Your task to perform on an android device: Show the shopping cart on newegg.com. Search for razer blackwidow on newegg.com, select the first entry, add it to the cart, then select checkout. Image 0: 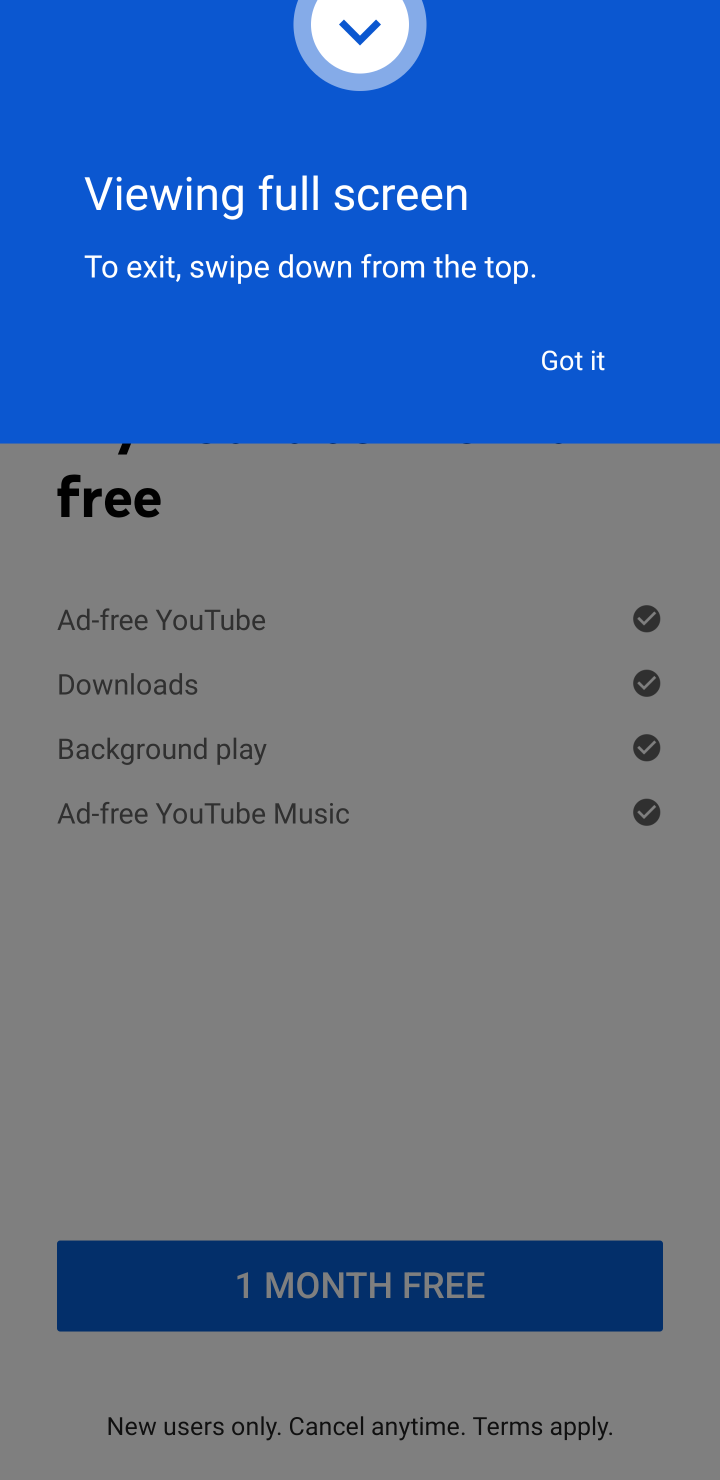
Step 0: click (576, 370)
Your task to perform on an android device: Show the shopping cart on newegg.com. Search for razer blackwidow on newegg.com, select the first entry, add it to the cart, then select checkout. Image 1: 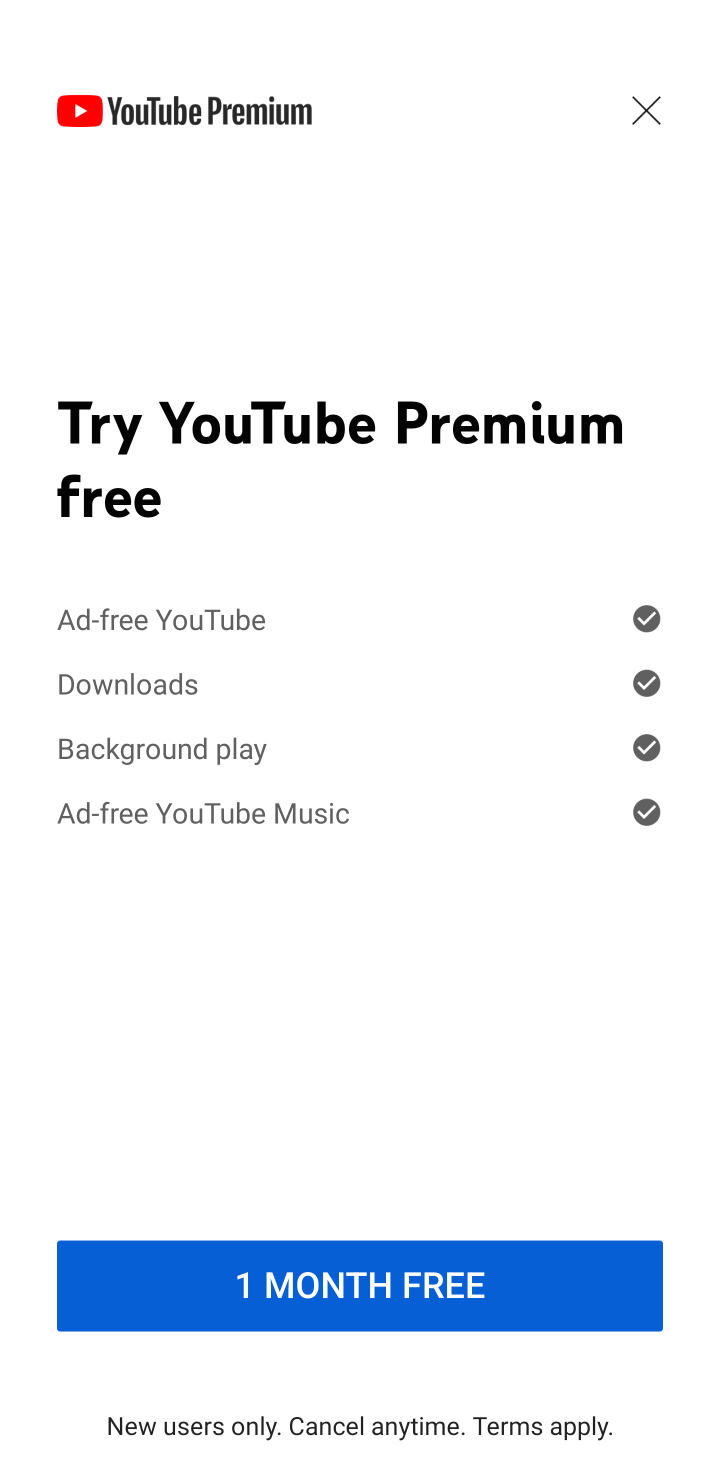
Step 1: click (643, 104)
Your task to perform on an android device: Show the shopping cart on newegg.com. Search for razer blackwidow on newegg.com, select the first entry, add it to the cart, then select checkout. Image 2: 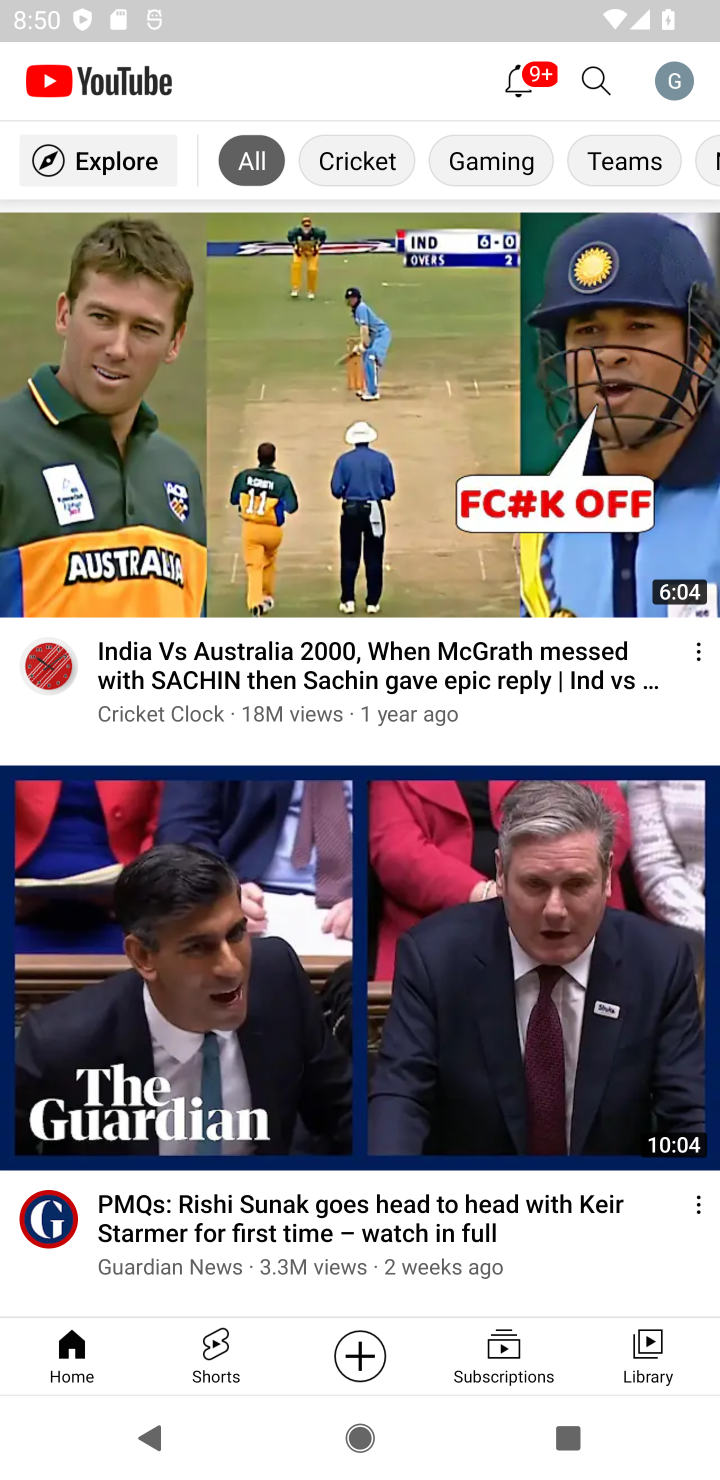
Step 2: press home button
Your task to perform on an android device: Show the shopping cart on newegg.com. Search for razer blackwidow on newegg.com, select the first entry, add it to the cart, then select checkout. Image 3: 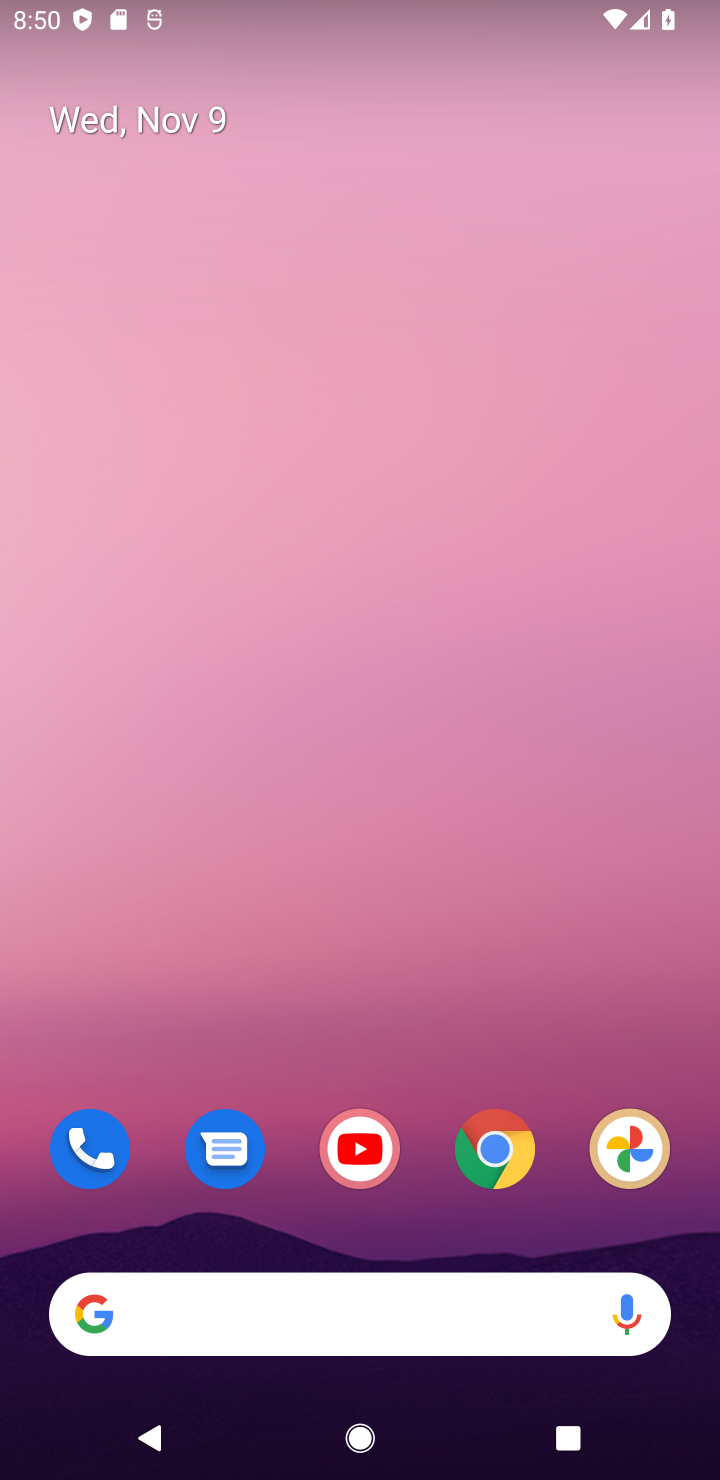
Step 3: click (487, 1122)
Your task to perform on an android device: Show the shopping cart on newegg.com. Search for razer blackwidow on newegg.com, select the first entry, add it to the cart, then select checkout. Image 4: 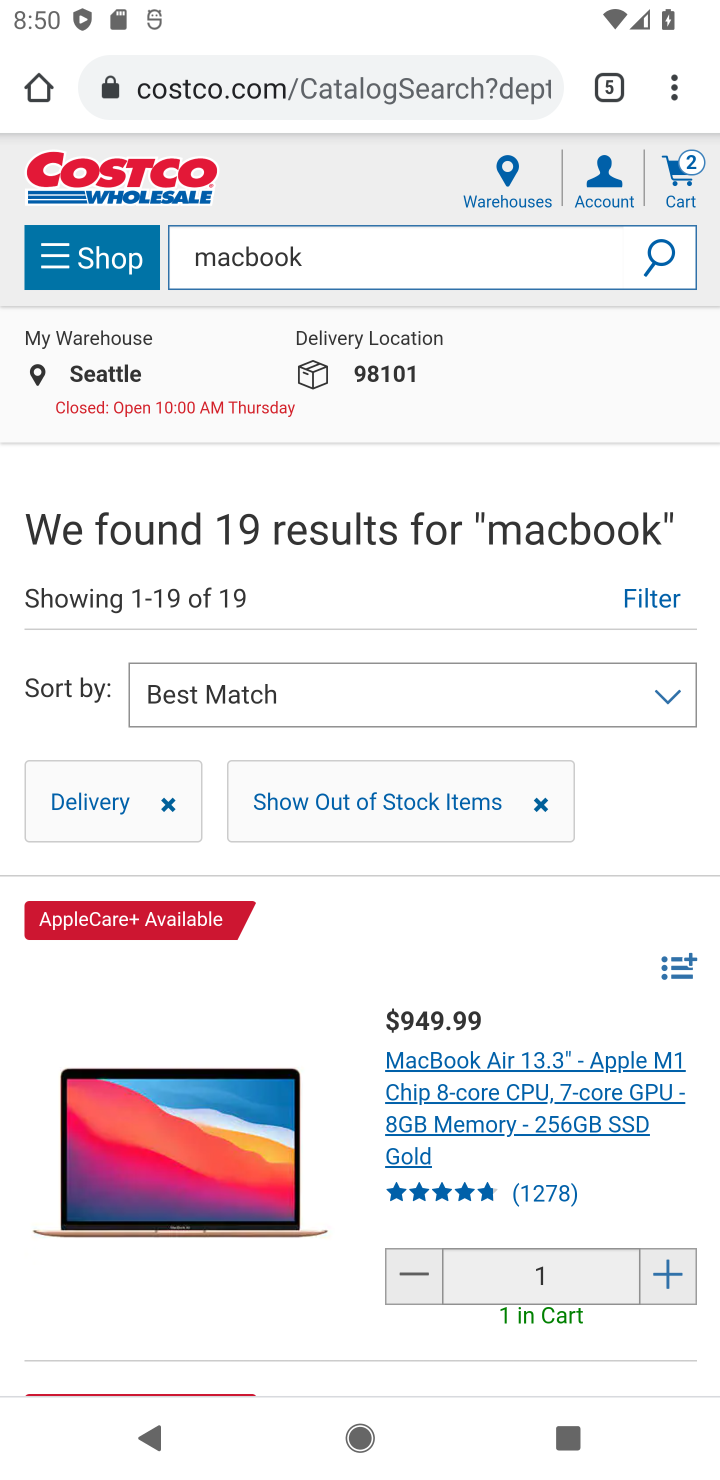
Step 4: click (608, 94)
Your task to perform on an android device: Show the shopping cart on newegg.com. Search for razer blackwidow on newegg.com, select the first entry, add it to the cart, then select checkout. Image 5: 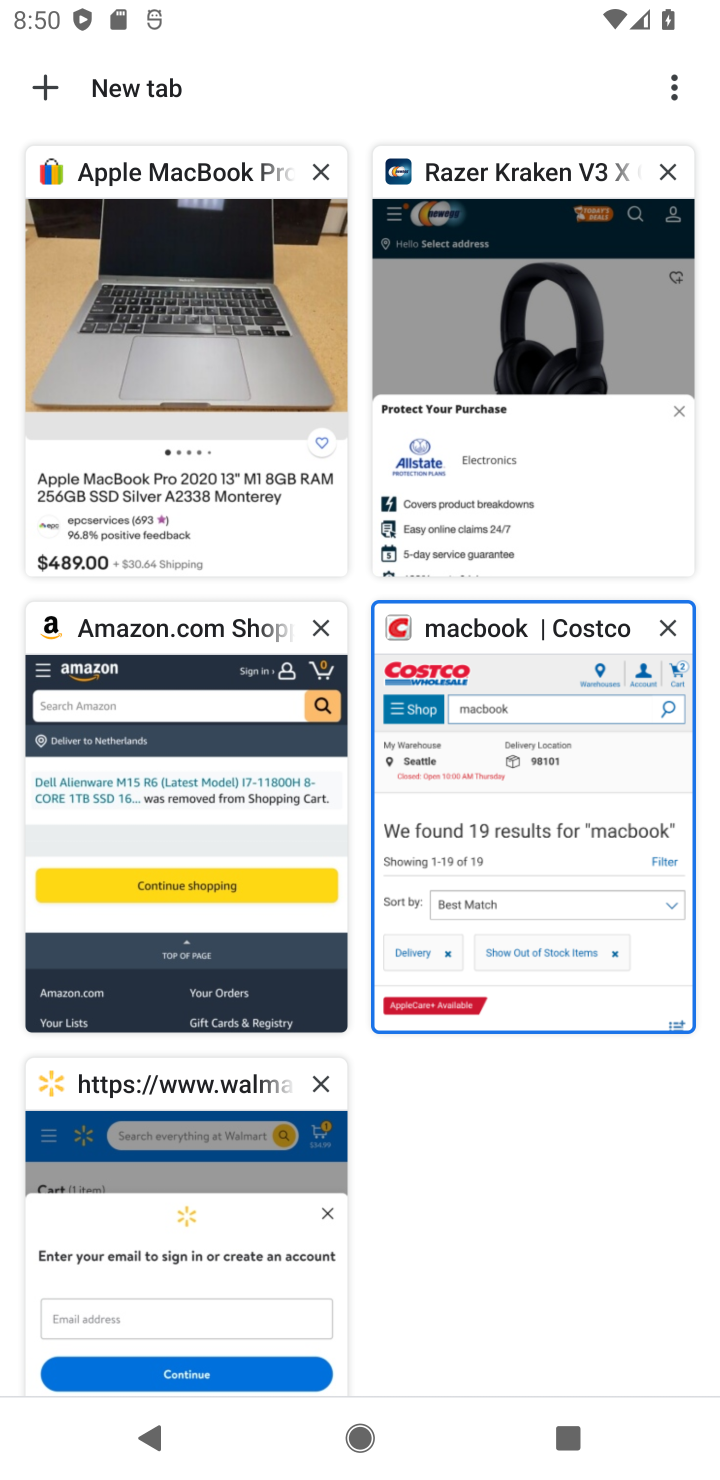
Step 5: click (487, 338)
Your task to perform on an android device: Show the shopping cart on newegg.com. Search for razer blackwidow on newegg.com, select the first entry, add it to the cart, then select checkout. Image 6: 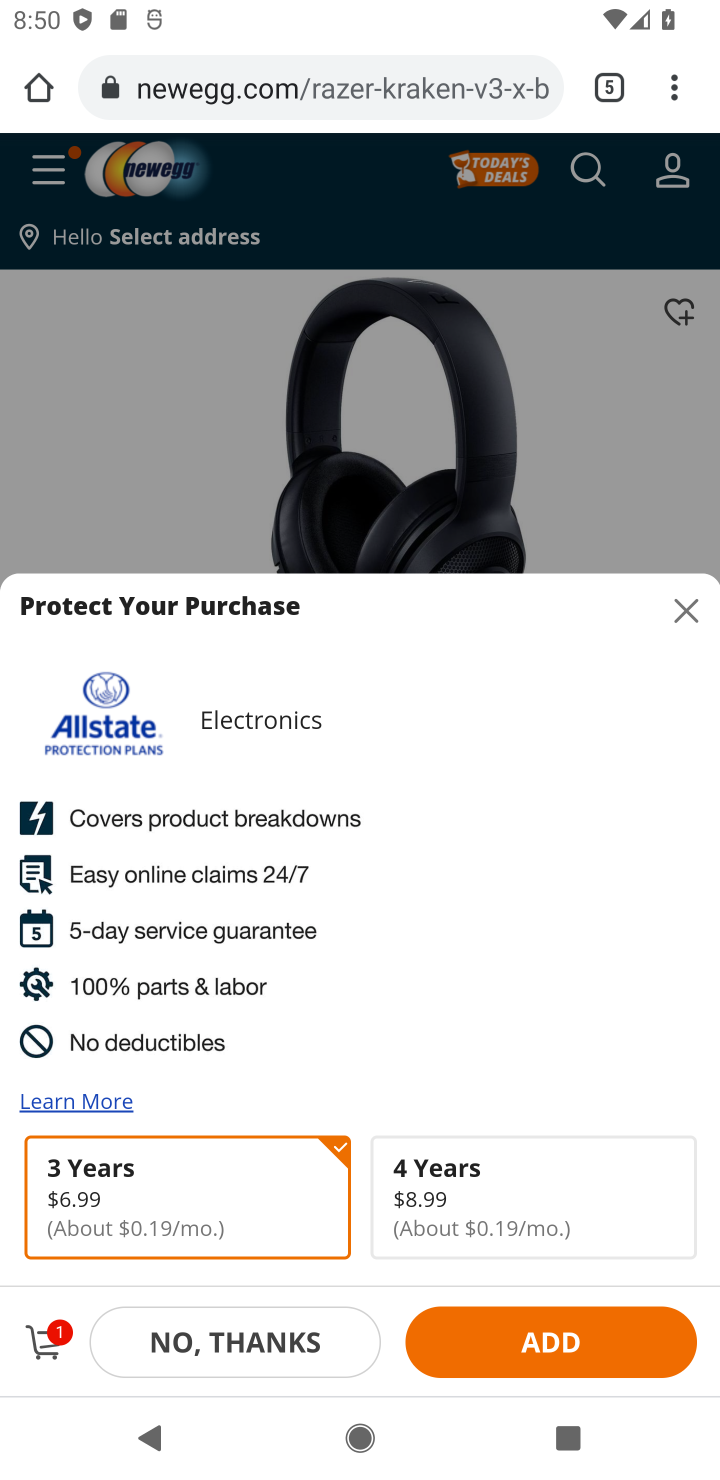
Step 6: click (690, 611)
Your task to perform on an android device: Show the shopping cart on newegg.com. Search for razer blackwidow on newegg.com, select the first entry, add it to the cart, then select checkout. Image 7: 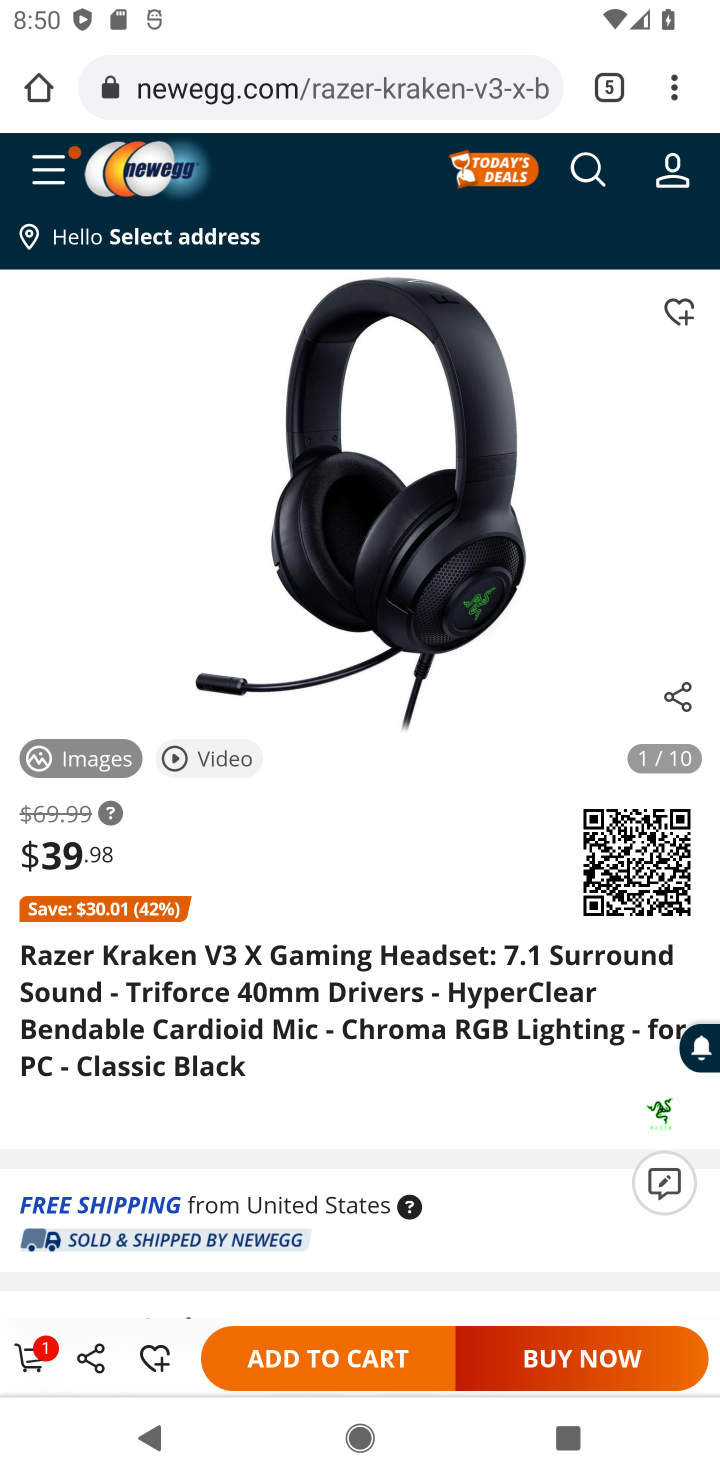
Step 7: click (594, 170)
Your task to perform on an android device: Show the shopping cart on newegg.com. Search for razer blackwidow on newegg.com, select the first entry, add it to the cart, then select checkout. Image 8: 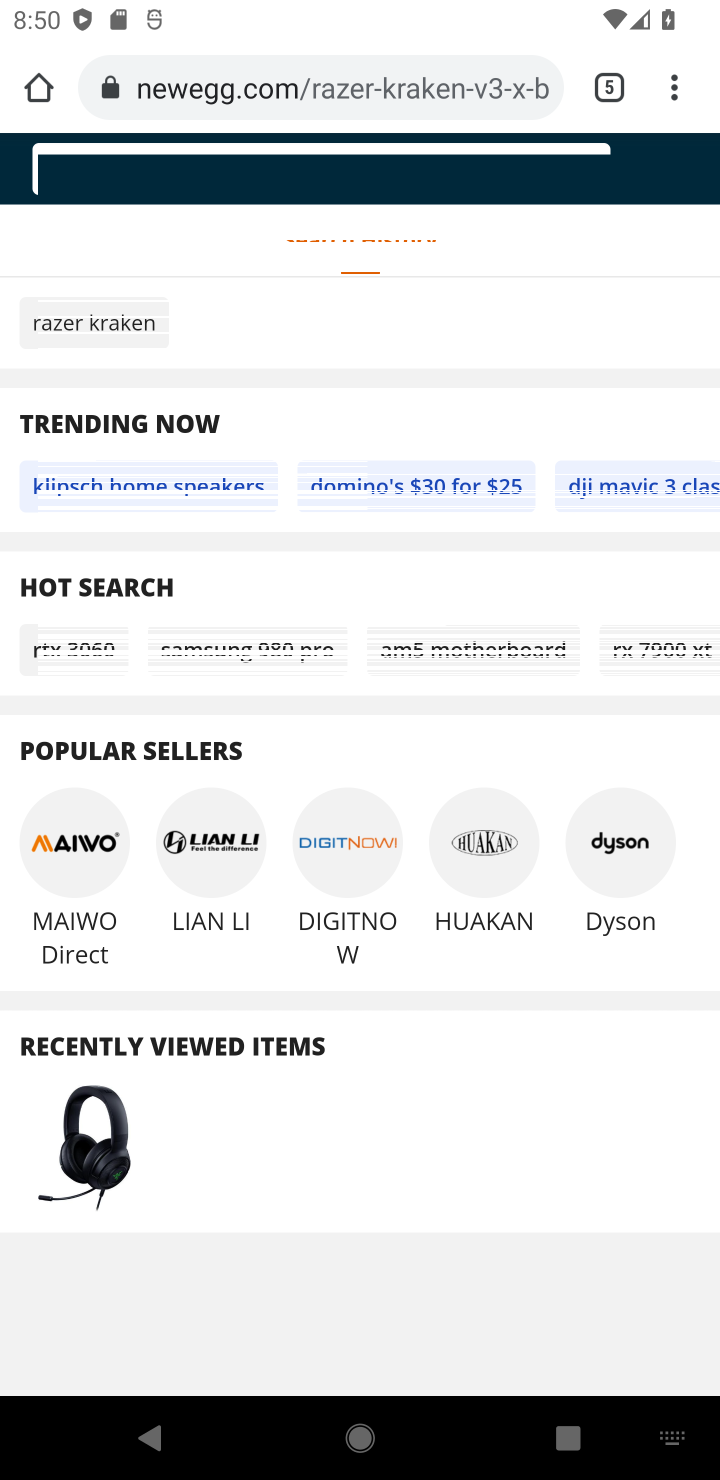
Step 8: type "razer blackwidow"
Your task to perform on an android device: Show the shopping cart on newegg.com. Search for razer blackwidow on newegg.com, select the first entry, add it to the cart, then select checkout. Image 9: 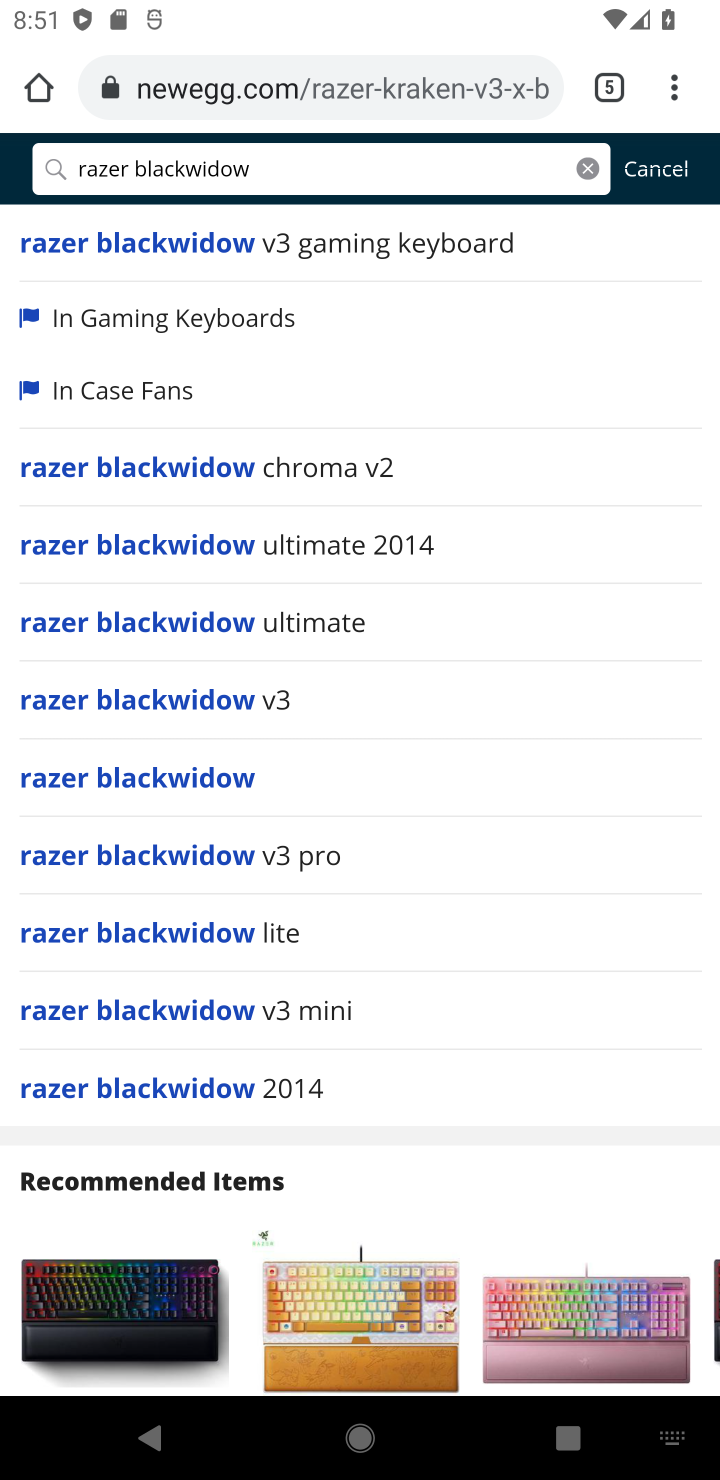
Step 9: click (187, 251)
Your task to perform on an android device: Show the shopping cart on newegg.com. Search for razer blackwidow on newegg.com, select the first entry, add it to the cart, then select checkout. Image 10: 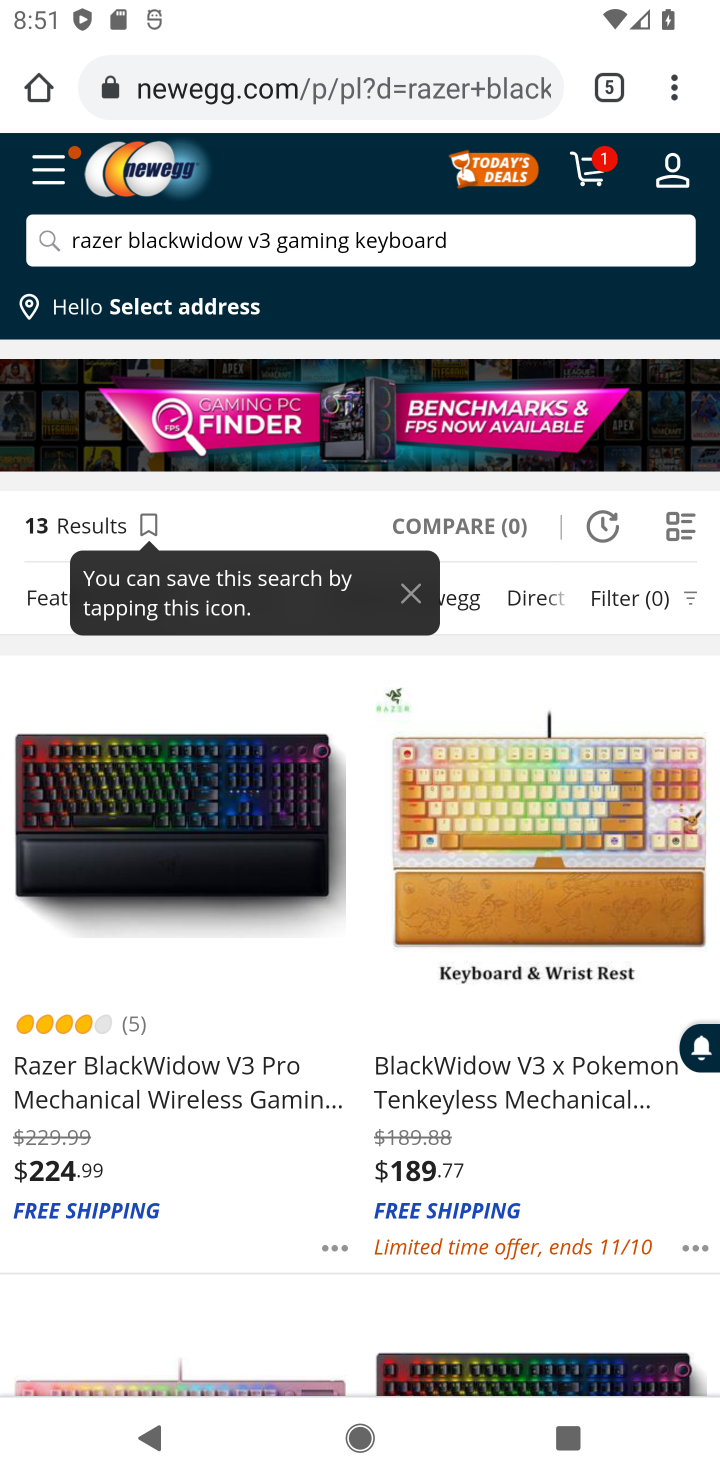
Step 10: click (145, 1083)
Your task to perform on an android device: Show the shopping cart on newegg.com. Search for razer blackwidow on newegg.com, select the first entry, add it to the cart, then select checkout. Image 11: 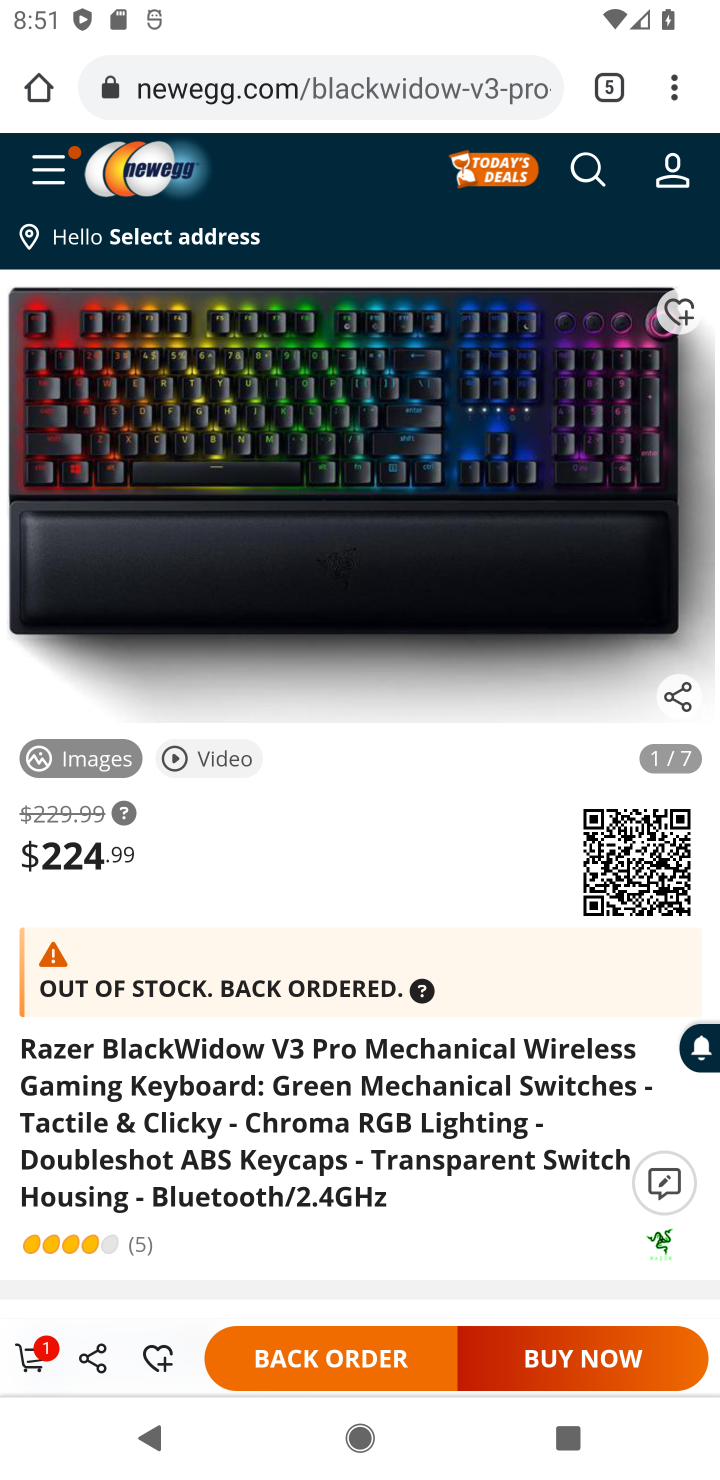
Step 11: click (296, 1364)
Your task to perform on an android device: Show the shopping cart on newegg.com. Search for razer blackwidow on newegg.com, select the first entry, add it to the cart, then select checkout. Image 12: 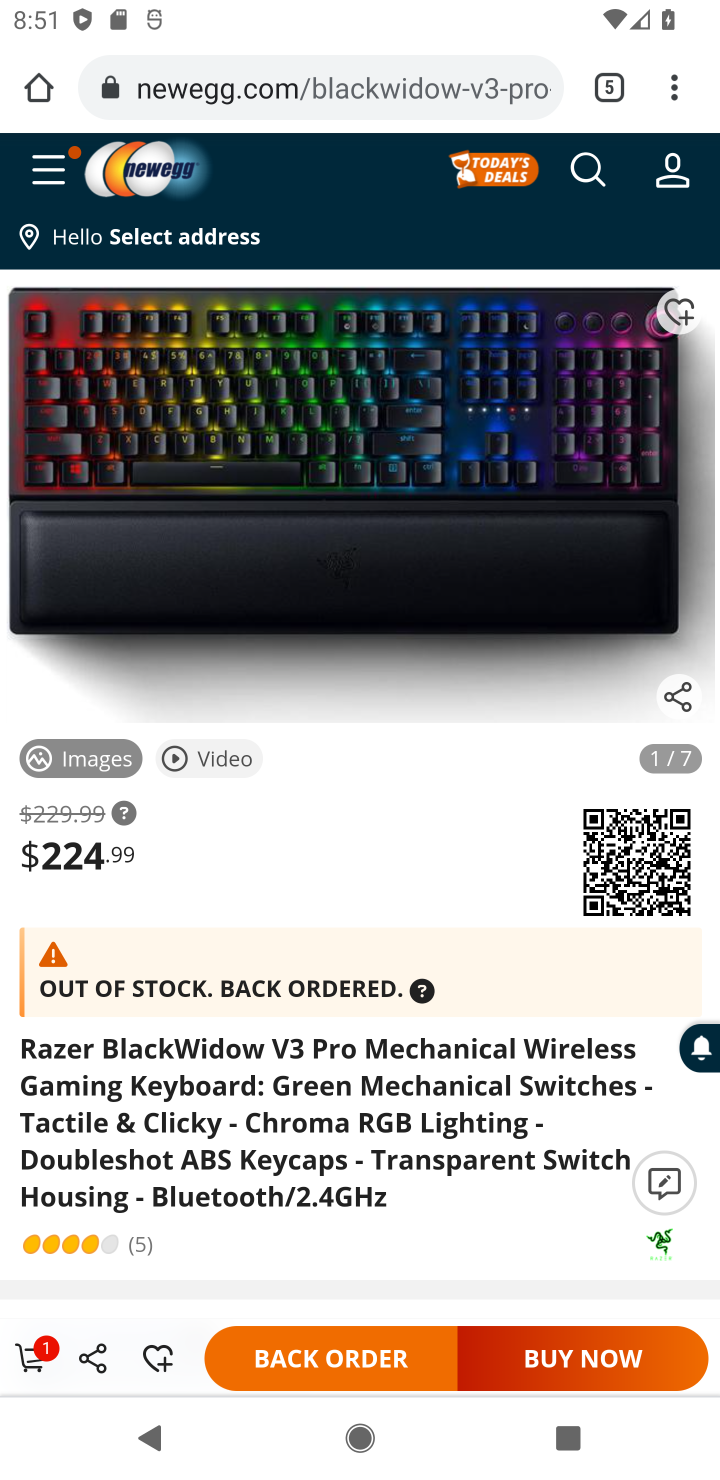
Step 12: click (296, 1364)
Your task to perform on an android device: Show the shopping cart on newegg.com. Search for razer blackwidow on newegg.com, select the first entry, add it to the cart, then select checkout. Image 13: 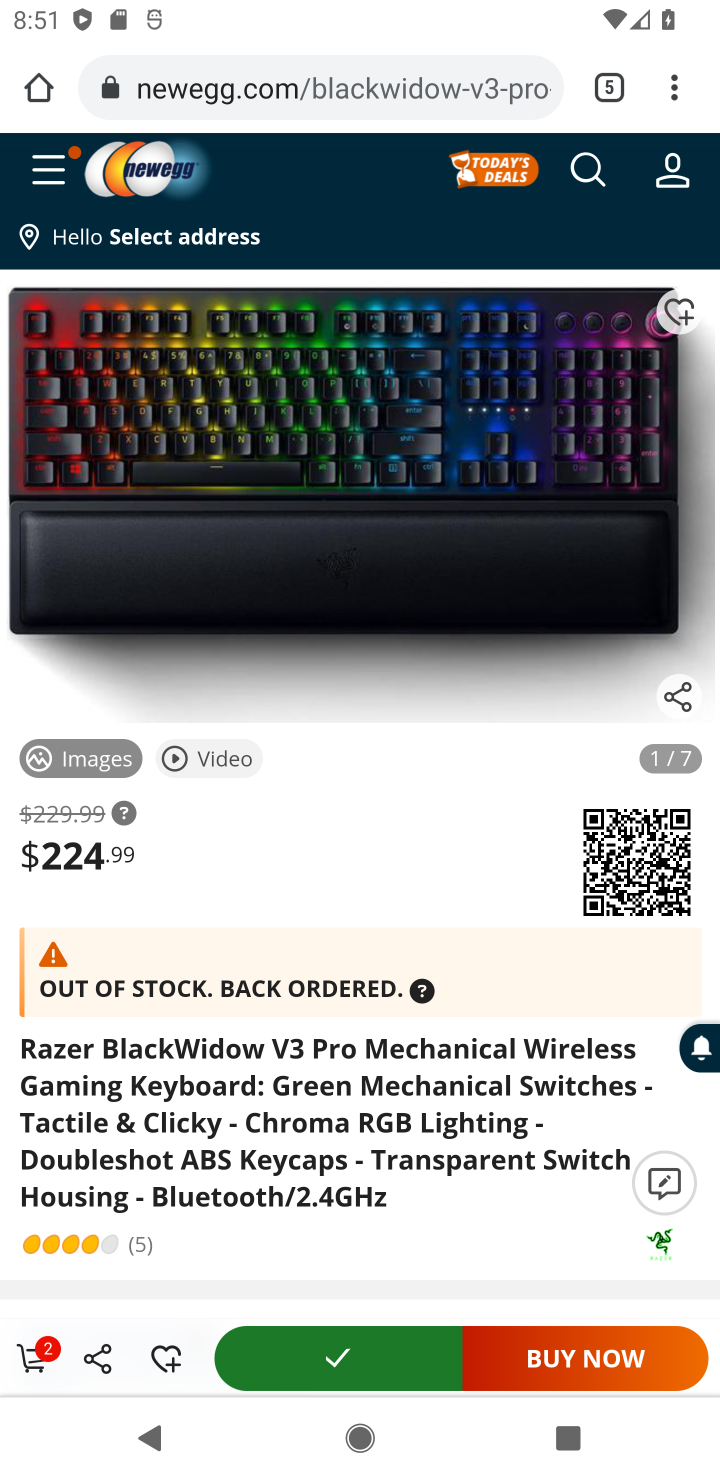
Step 13: task complete